Your task to perform on an android device: turn on improve location accuracy Image 0: 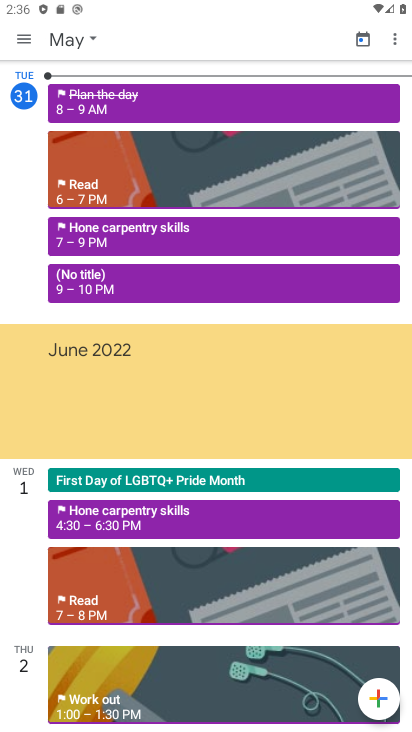
Step 0: press home button
Your task to perform on an android device: turn on improve location accuracy Image 1: 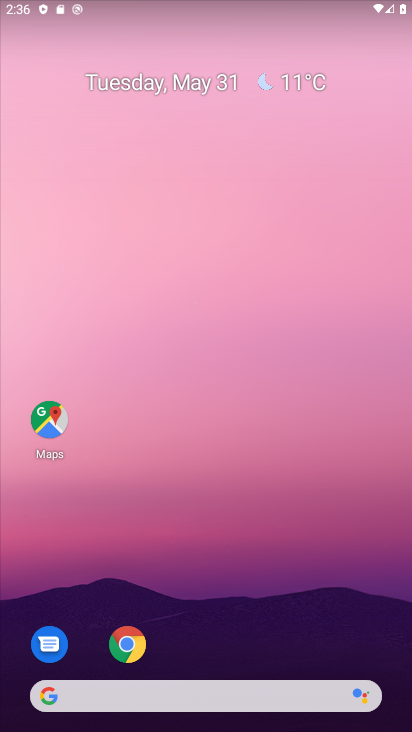
Step 1: drag from (305, 617) to (232, 218)
Your task to perform on an android device: turn on improve location accuracy Image 2: 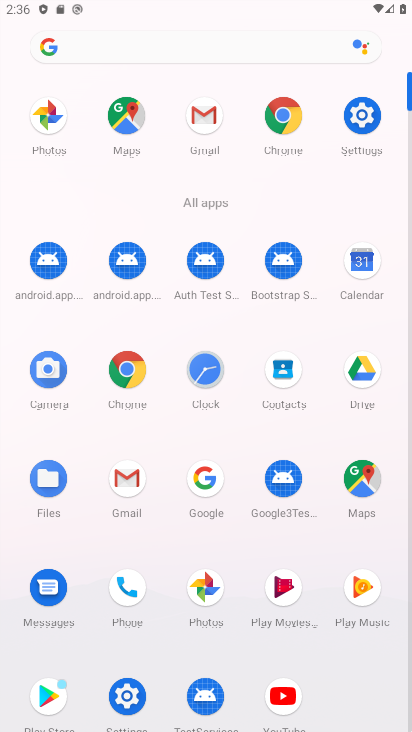
Step 2: click (356, 115)
Your task to perform on an android device: turn on improve location accuracy Image 3: 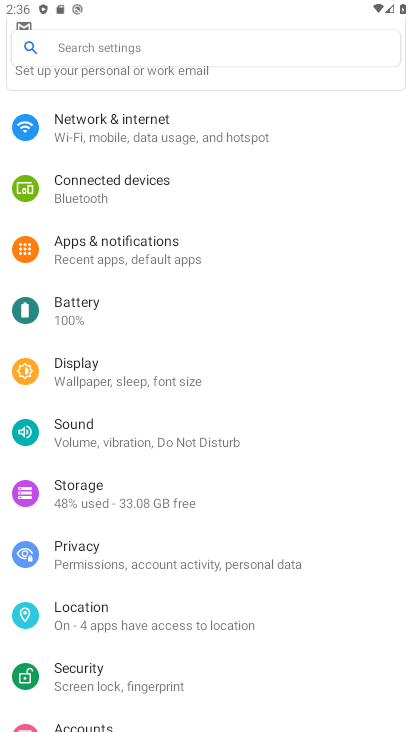
Step 3: click (101, 609)
Your task to perform on an android device: turn on improve location accuracy Image 4: 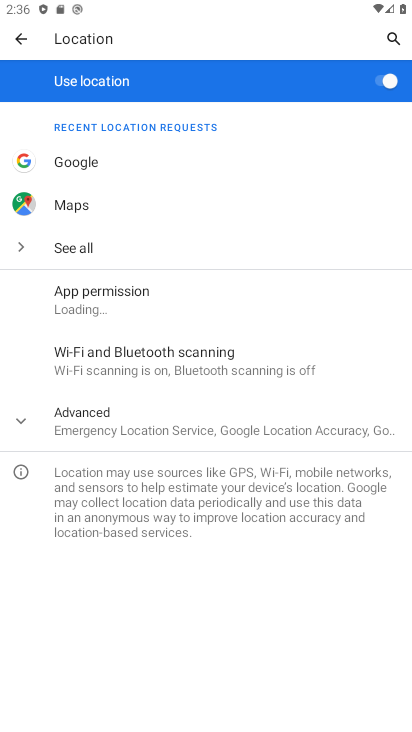
Step 4: click (154, 418)
Your task to perform on an android device: turn on improve location accuracy Image 5: 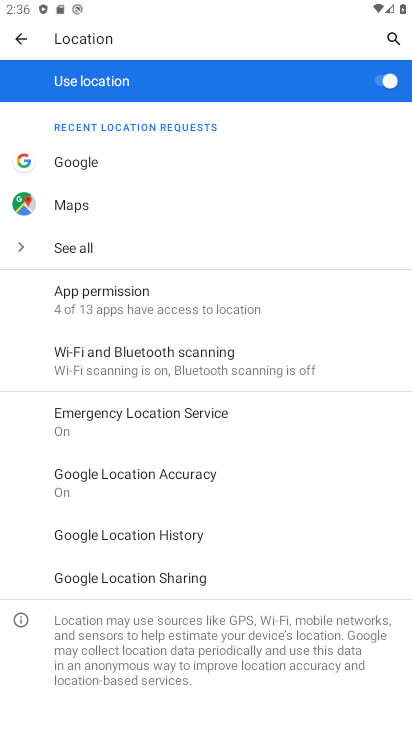
Step 5: click (122, 479)
Your task to perform on an android device: turn on improve location accuracy Image 6: 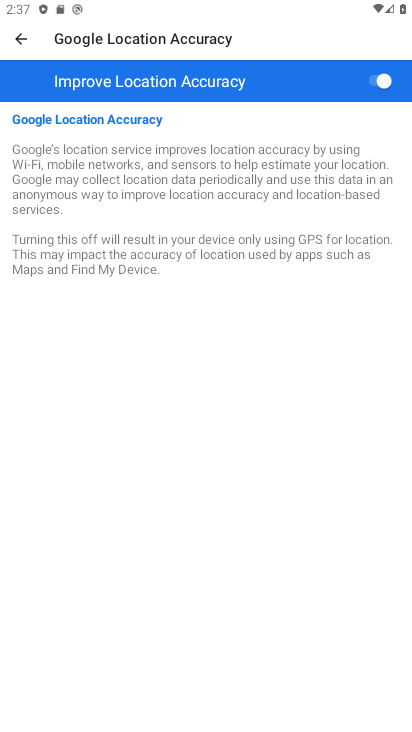
Step 6: task complete